Your task to perform on an android device: Is it going to rain this weekend? Image 0: 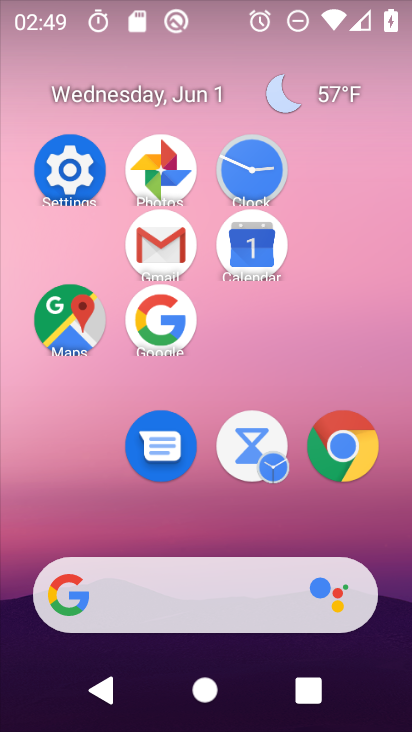
Step 0: click (166, 313)
Your task to perform on an android device: Is it going to rain this weekend? Image 1: 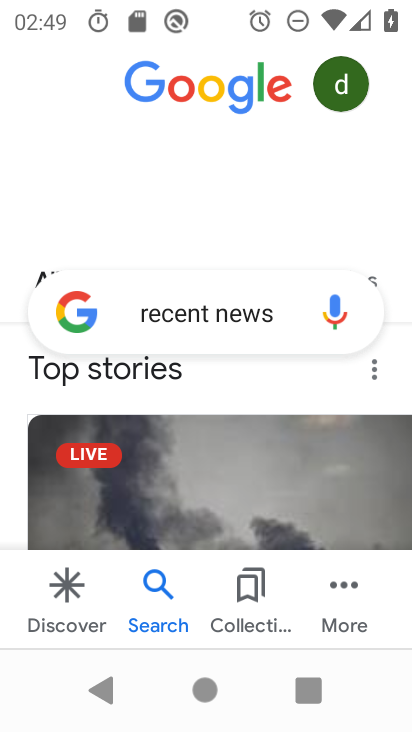
Step 1: click (252, 304)
Your task to perform on an android device: Is it going to rain this weekend? Image 2: 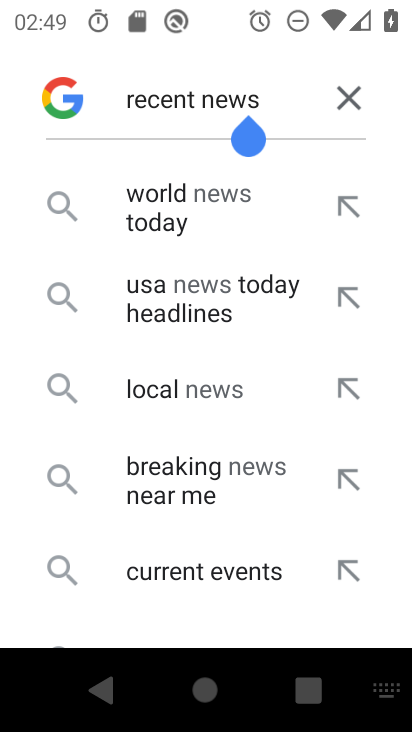
Step 2: click (375, 106)
Your task to perform on an android device: Is it going to rain this weekend? Image 3: 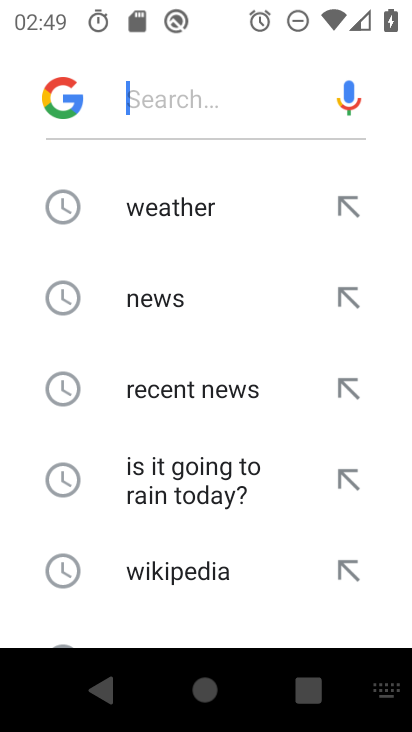
Step 3: click (218, 234)
Your task to perform on an android device: Is it going to rain this weekend? Image 4: 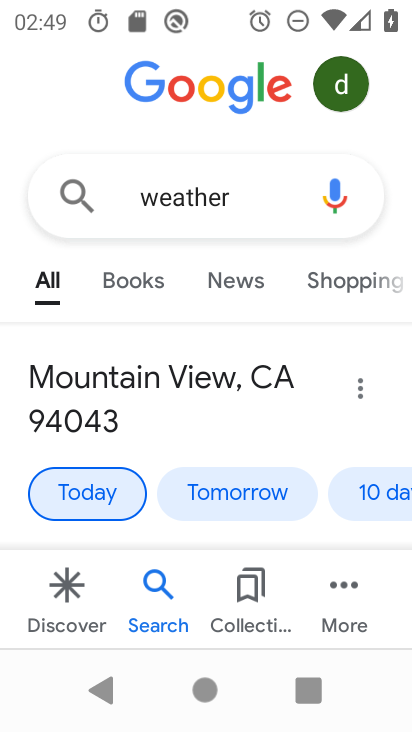
Step 4: click (359, 505)
Your task to perform on an android device: Is it going to rain this weekend? Image 5: 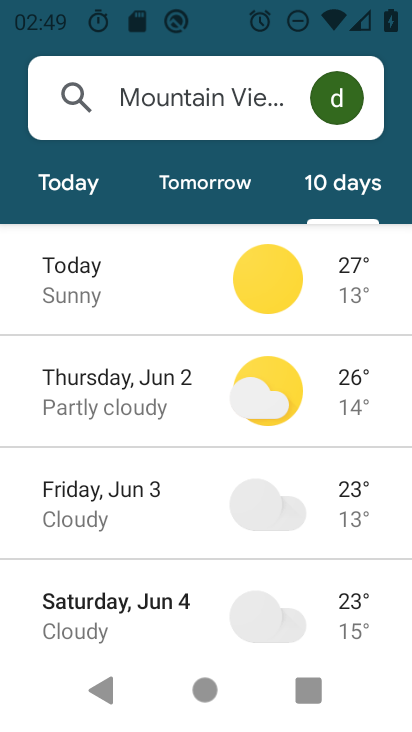
Step 5: click (146, 616)
Your task to perform on an android device: Is it going to rain this weekend? Image 6: 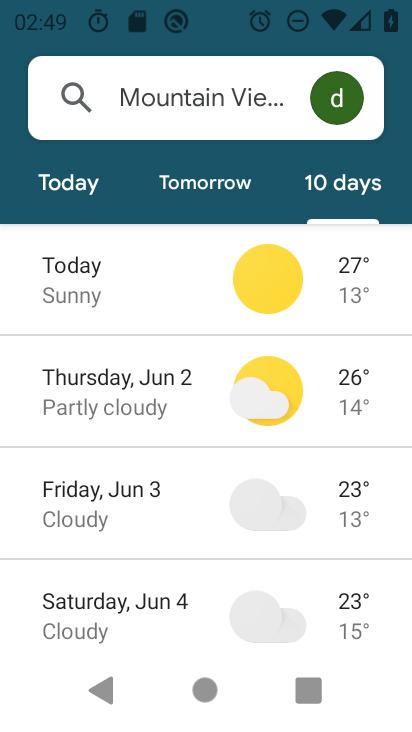
Step 6: drag from (193, 539) to (213, 261)
Your task to perform on an android device: Is it going to rain this weekend? Image 7: 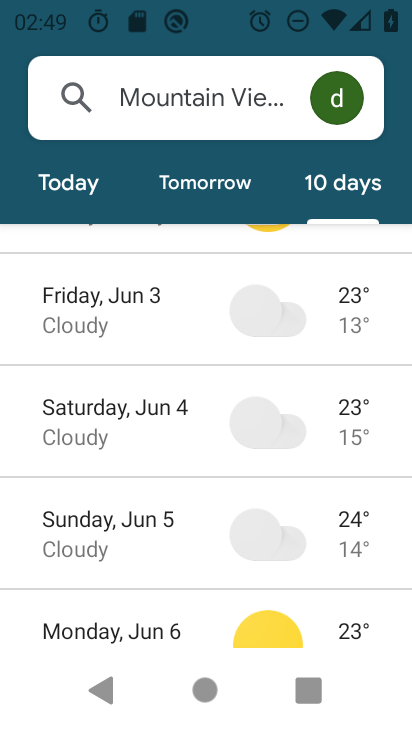
Step 7: click (200, 439)
Your task to perform on an android device: Is it going to rain this weekend? Image 8: 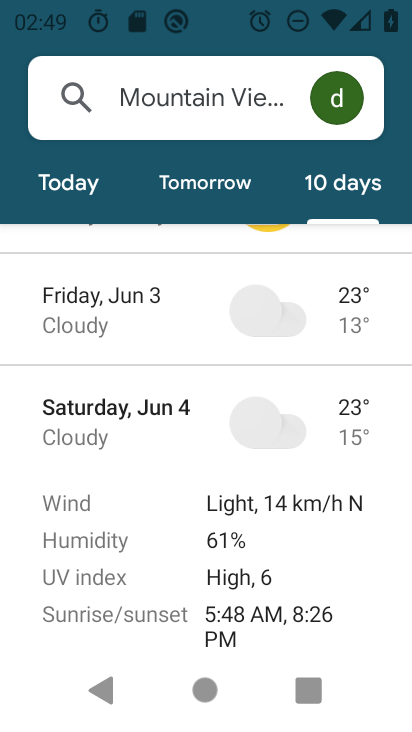
Step 8: task complete